Your task to perform on an android device: Search for "The Dispatcher" by John Scalzi on Goodreads Image 0: 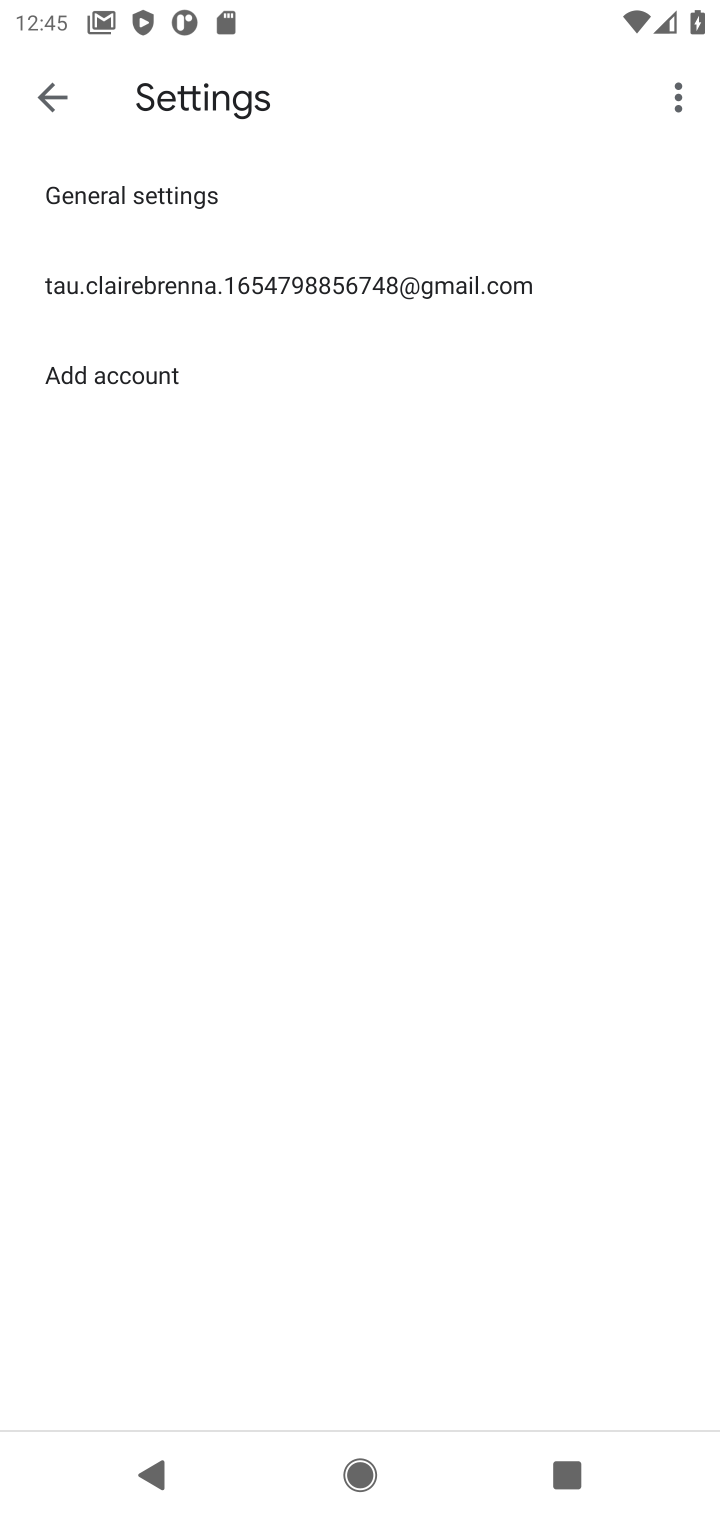
Step 0: press home button
Your task to perform on an android device: Search for "The Dispatcher" by John Scalzi on Goodreads Image 1: 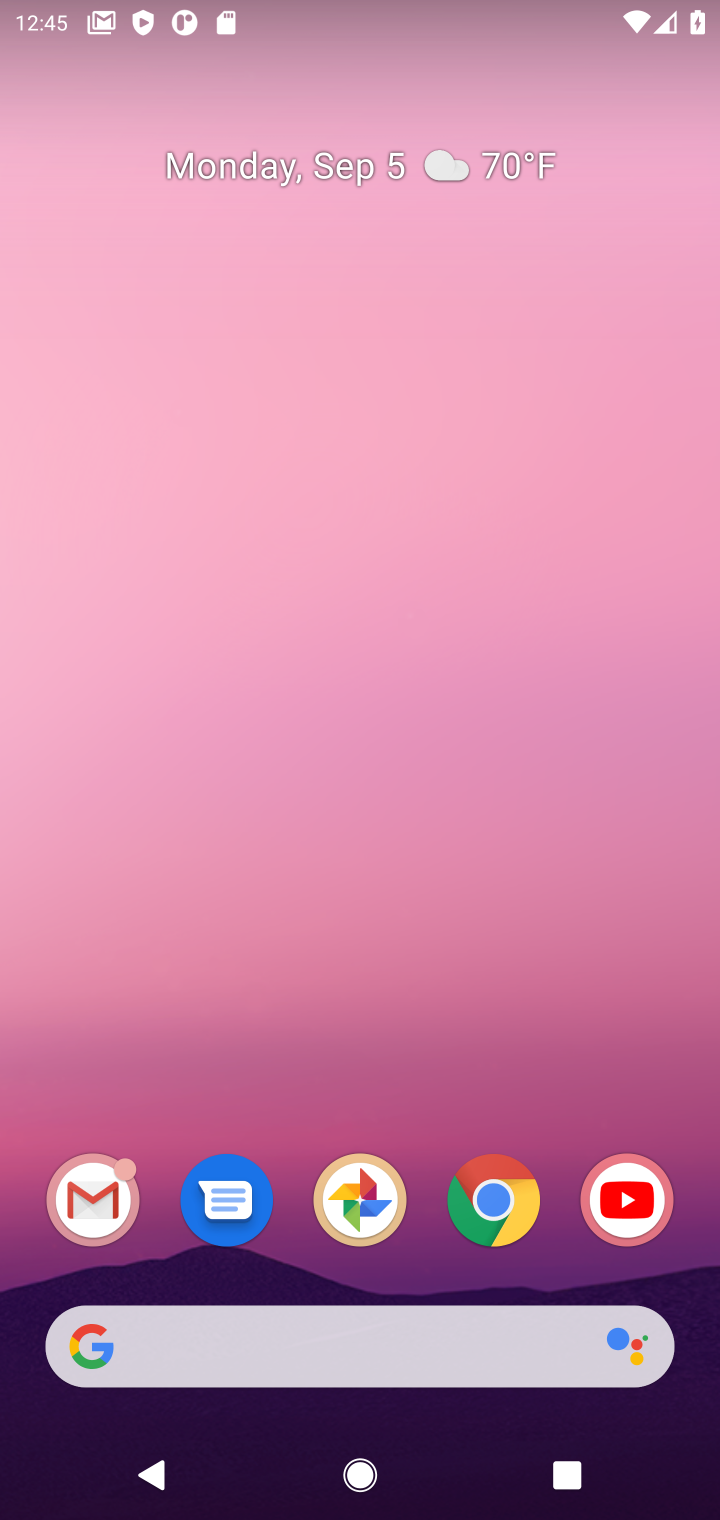
Step 1: click (501, 1218)
Your task to perform on an android device: Search for "The Dispatcher" by John Scalzi on Goodreads Image 2: 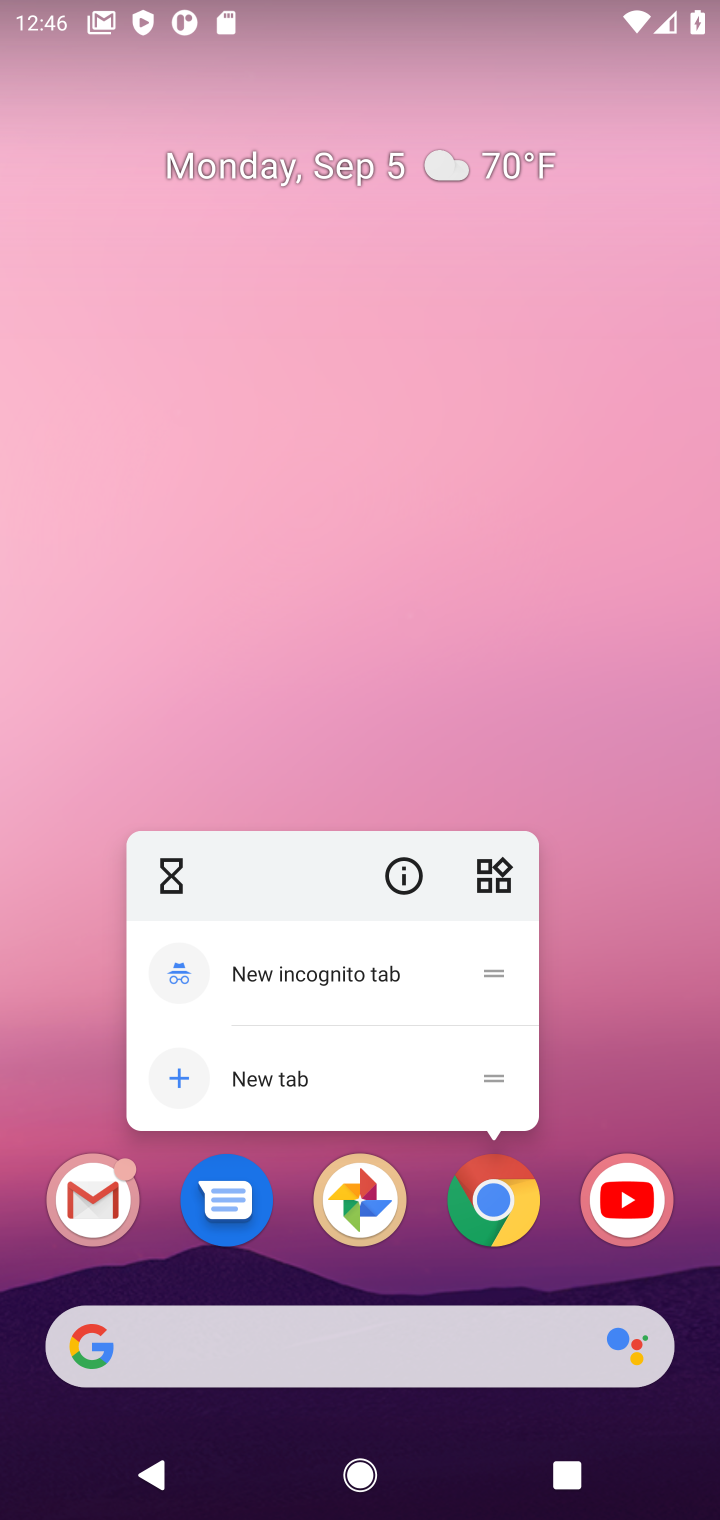
Step 2: drag from (501, 1218) to (491, 622)
Your task to perform on an android device: Search for "The Dispatcher" by John Scalzi on Goodreads Image 3: 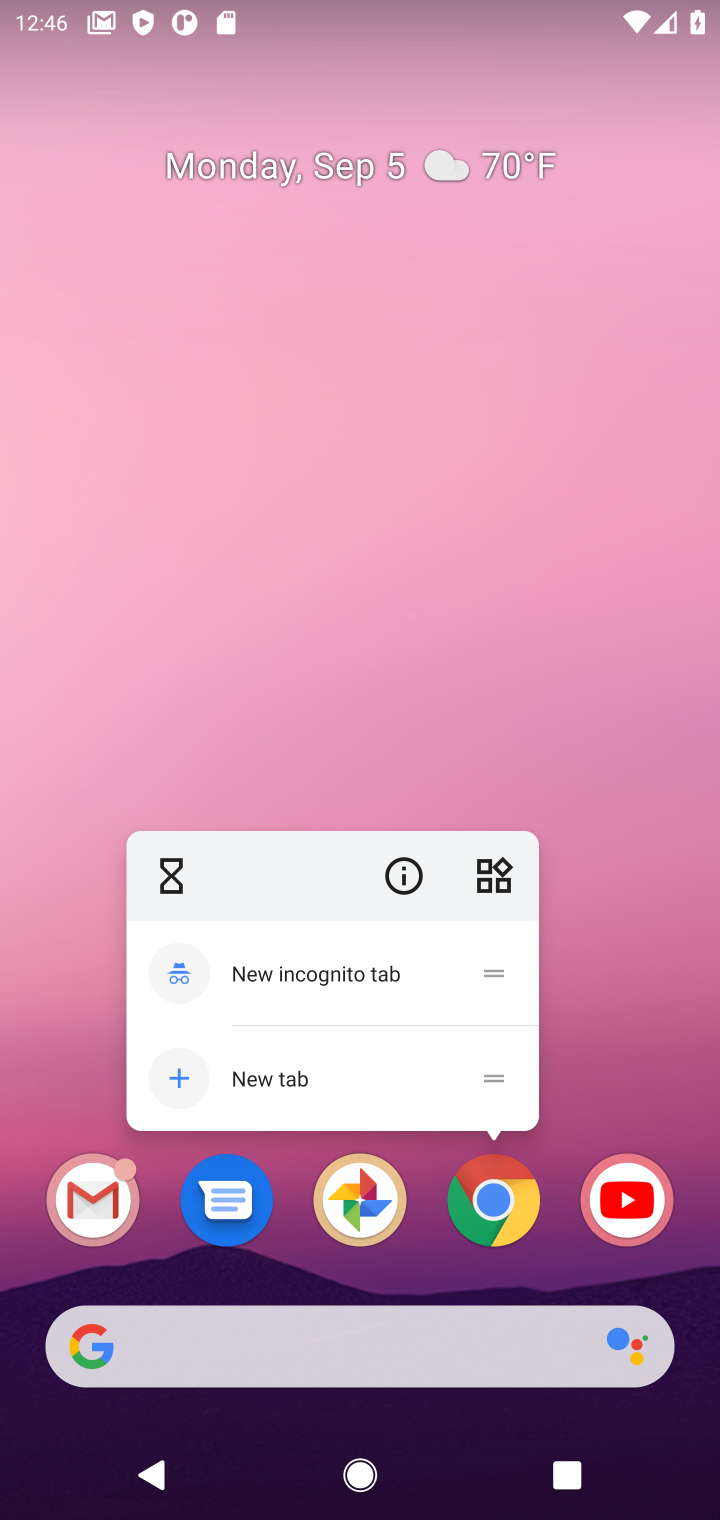
Step 3: click (485, 1194)
Your task to perform on an android device: Search for "The Dispatcher" by John Scalzi on Goodreads Image 4: 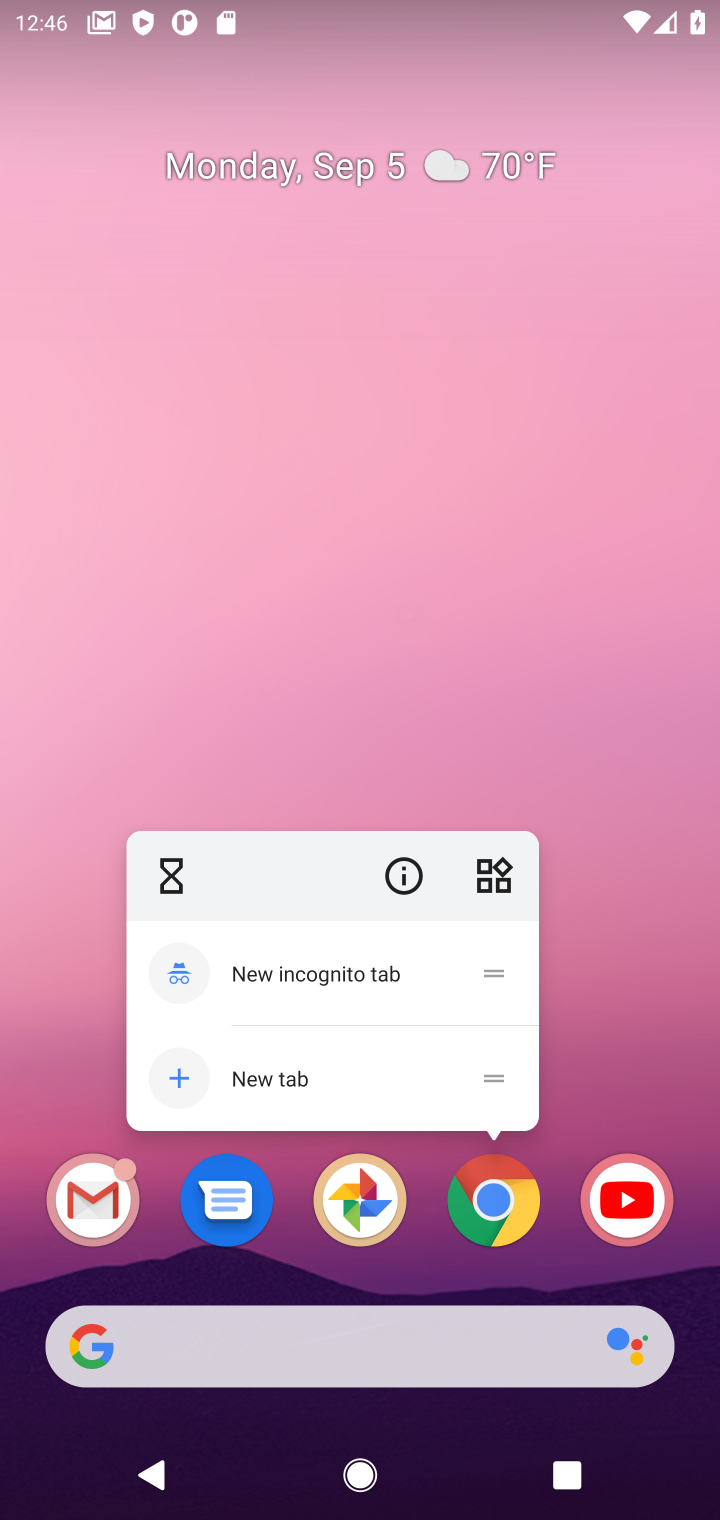
Step 4: click (506, 1221)
Your task to perform on an android device: Search for "The Dispatcher" by John Scalzi on Goodreads Image 5: 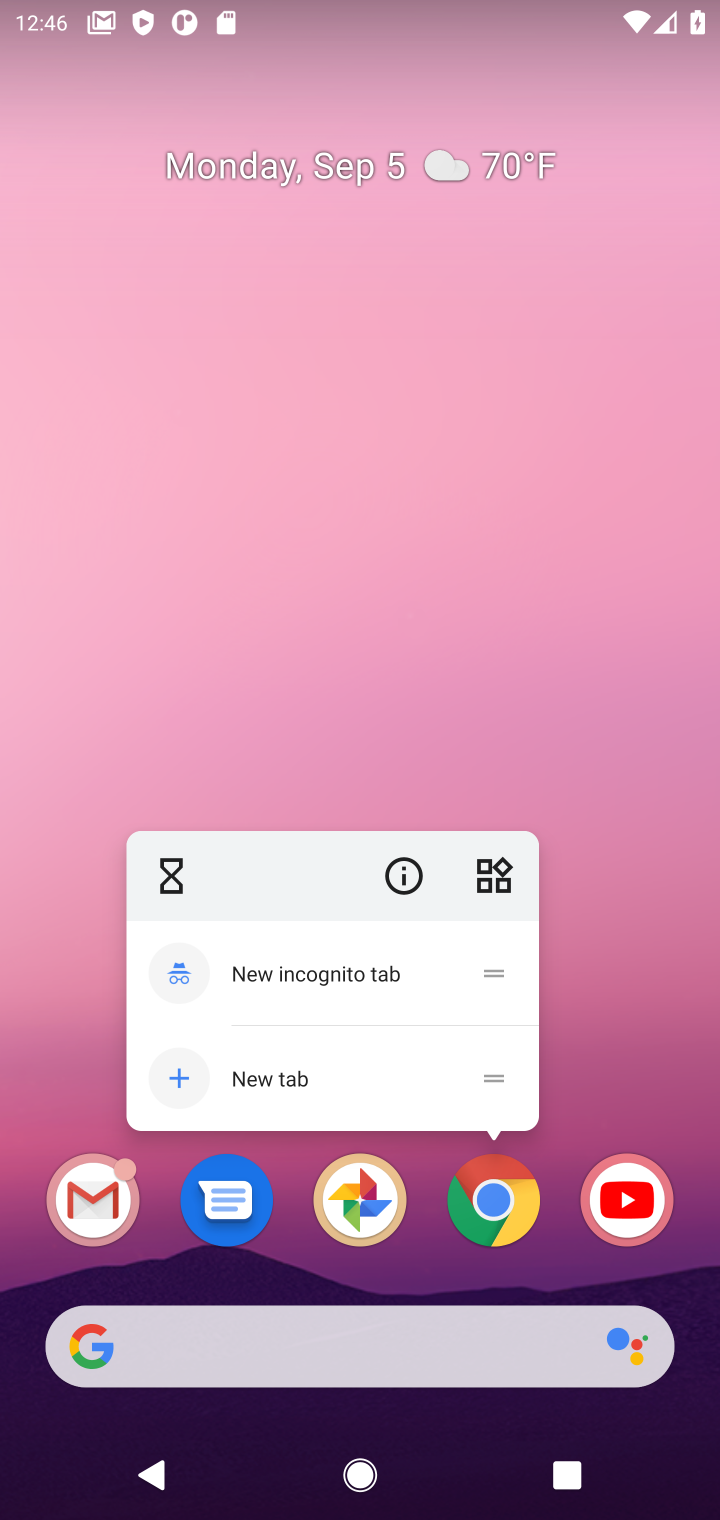
Step 5: click (501, 1219)
Your task to perform on an android device: Search for "The Dispatcher" by John Scalzi on Goodreads Image 6: 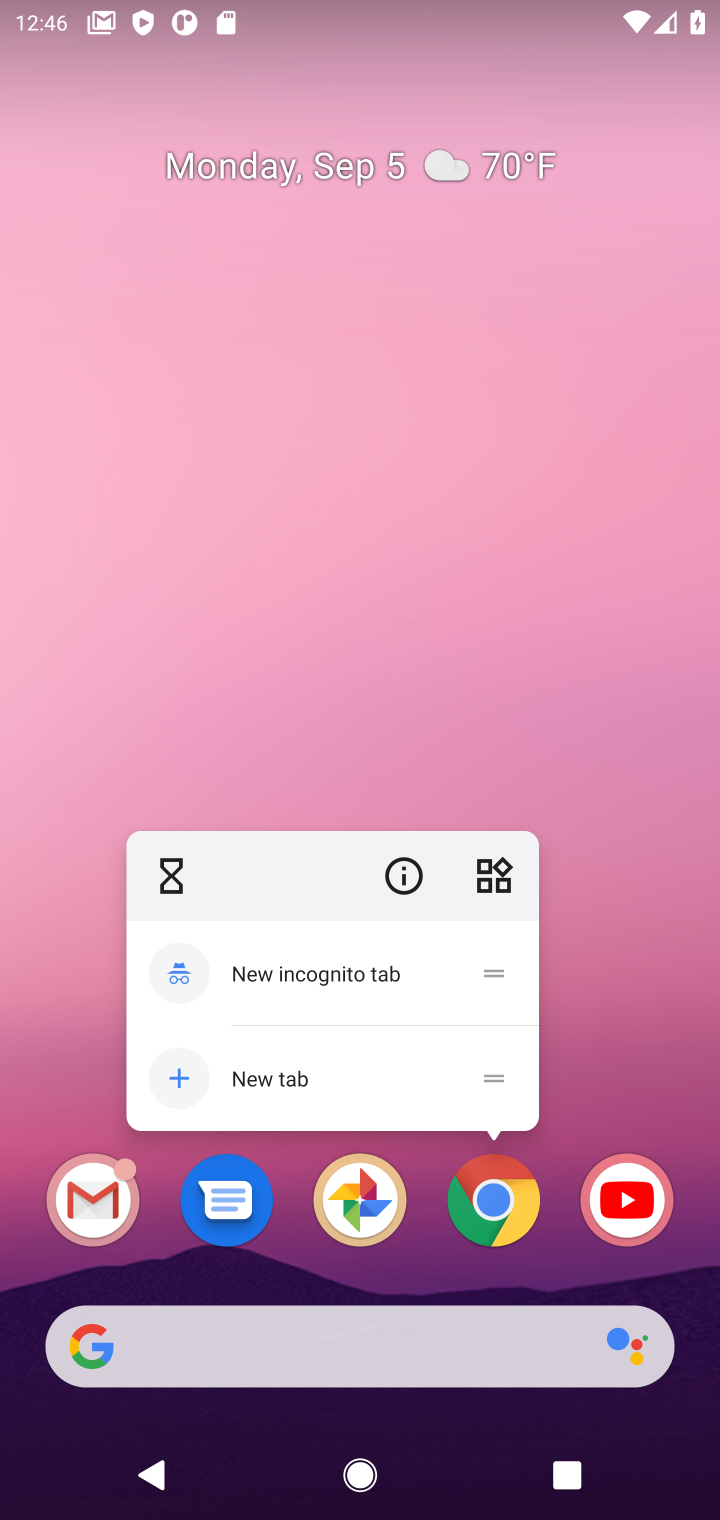
Step 6: click (460, 1204)
Your task to perform on an android device: Search for "The Dispatcher" by John Scalzi on Goodreads Image 7: 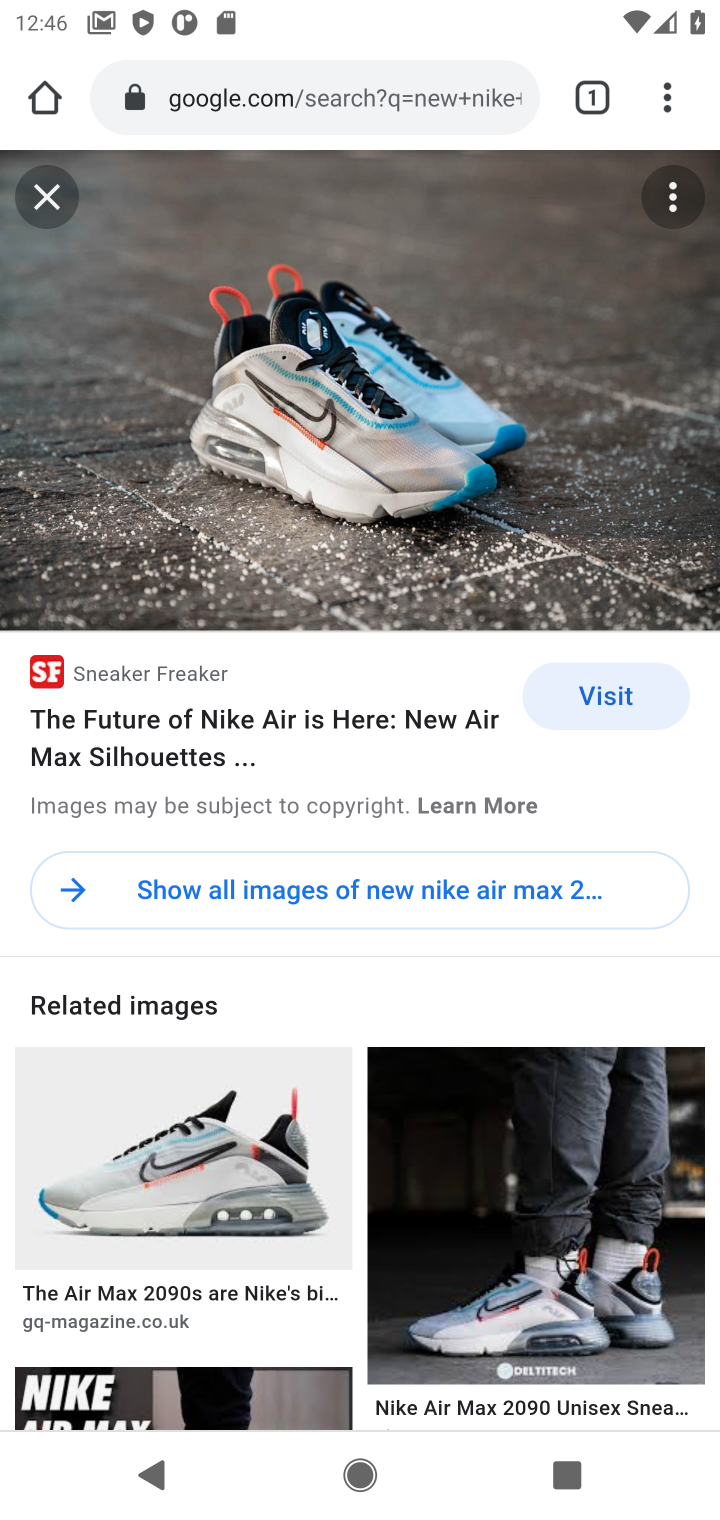
Step 7: click (448, 109)
Your task to perform on an android device: Search for "The Dispatcher" by John Scalzi on Goodreads Image 8: 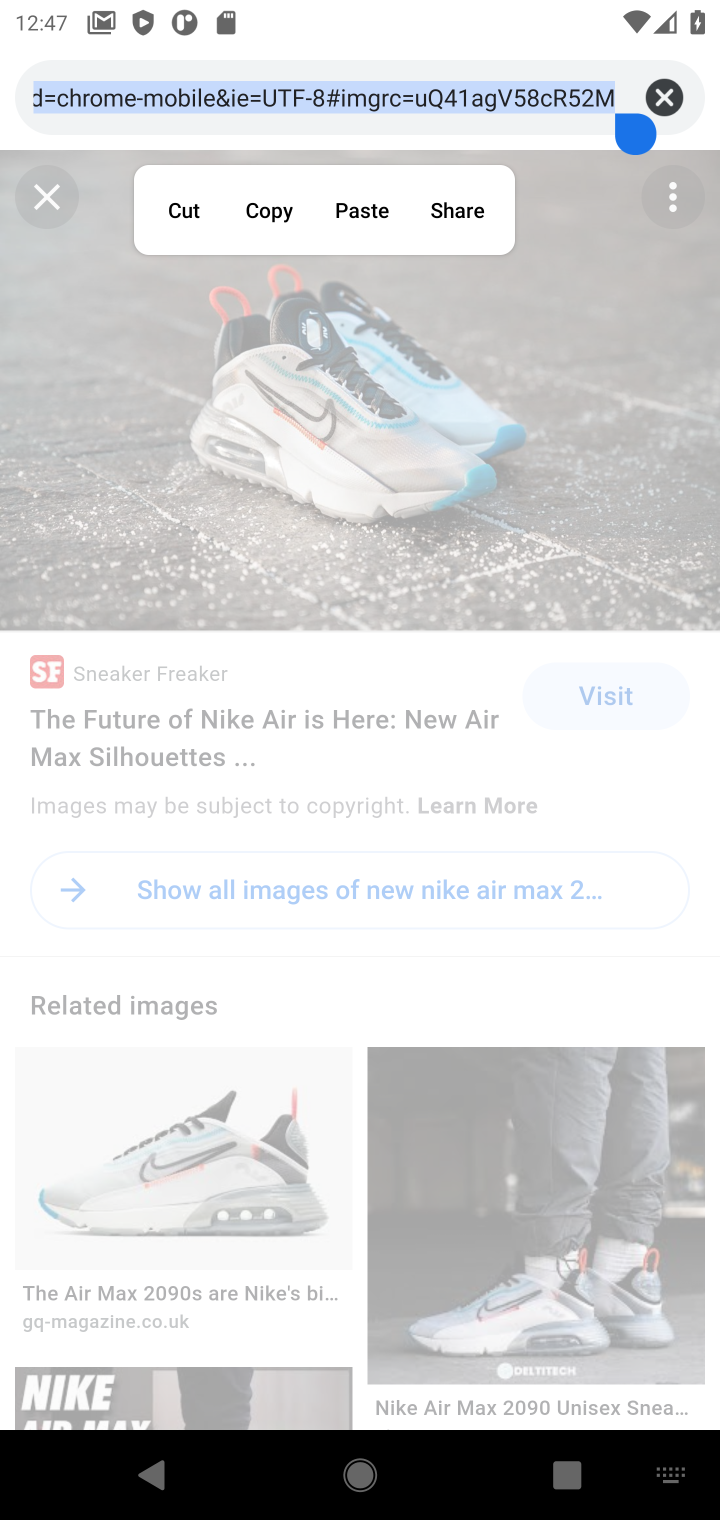
Step 8: type "goodreads"
Your task to perform on an android device: Search for "The Dispatcher" by John Scalzi on Goodreads Image 9: 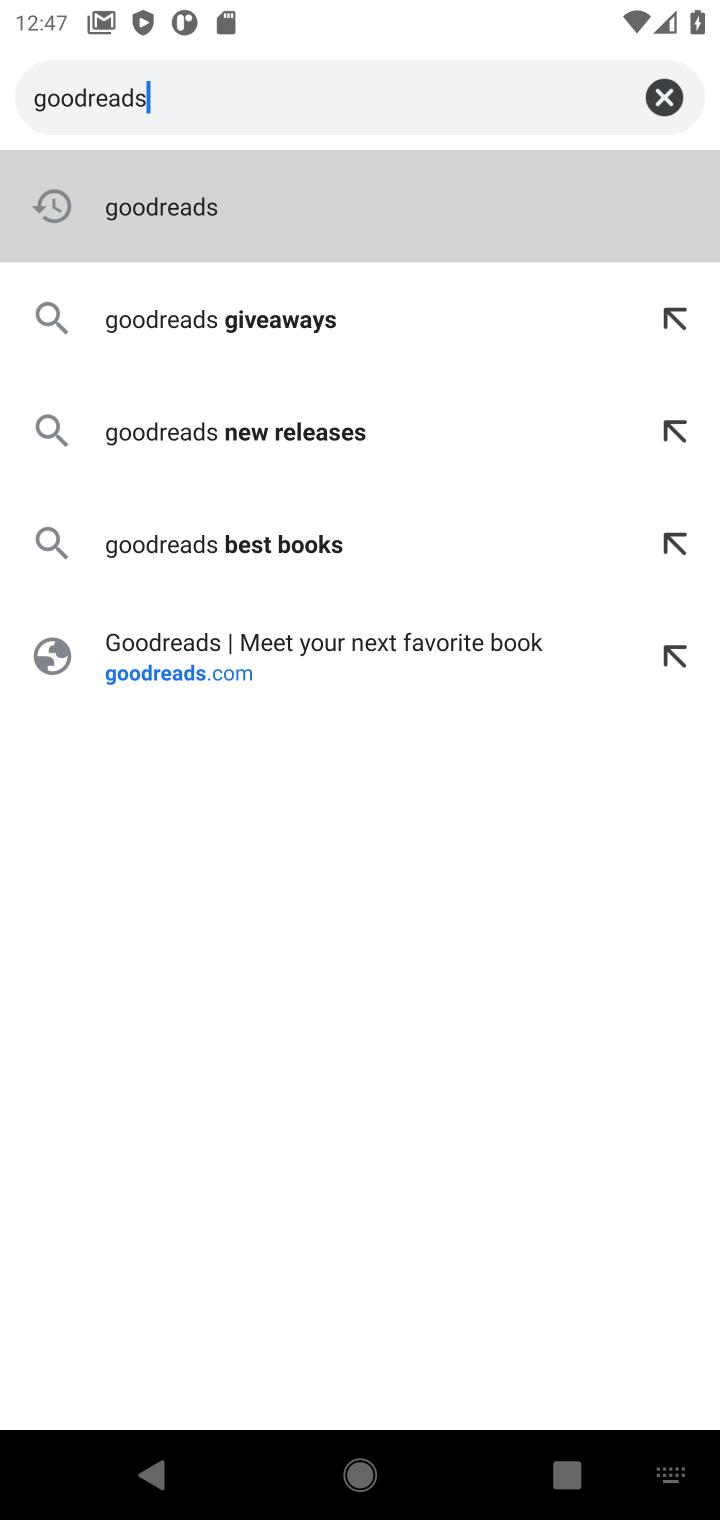
Step 9: click (306, 227)
Your task to perform on an android device: Search for "The Dispatcher" by John Scalzi on Goodreads Image 10: 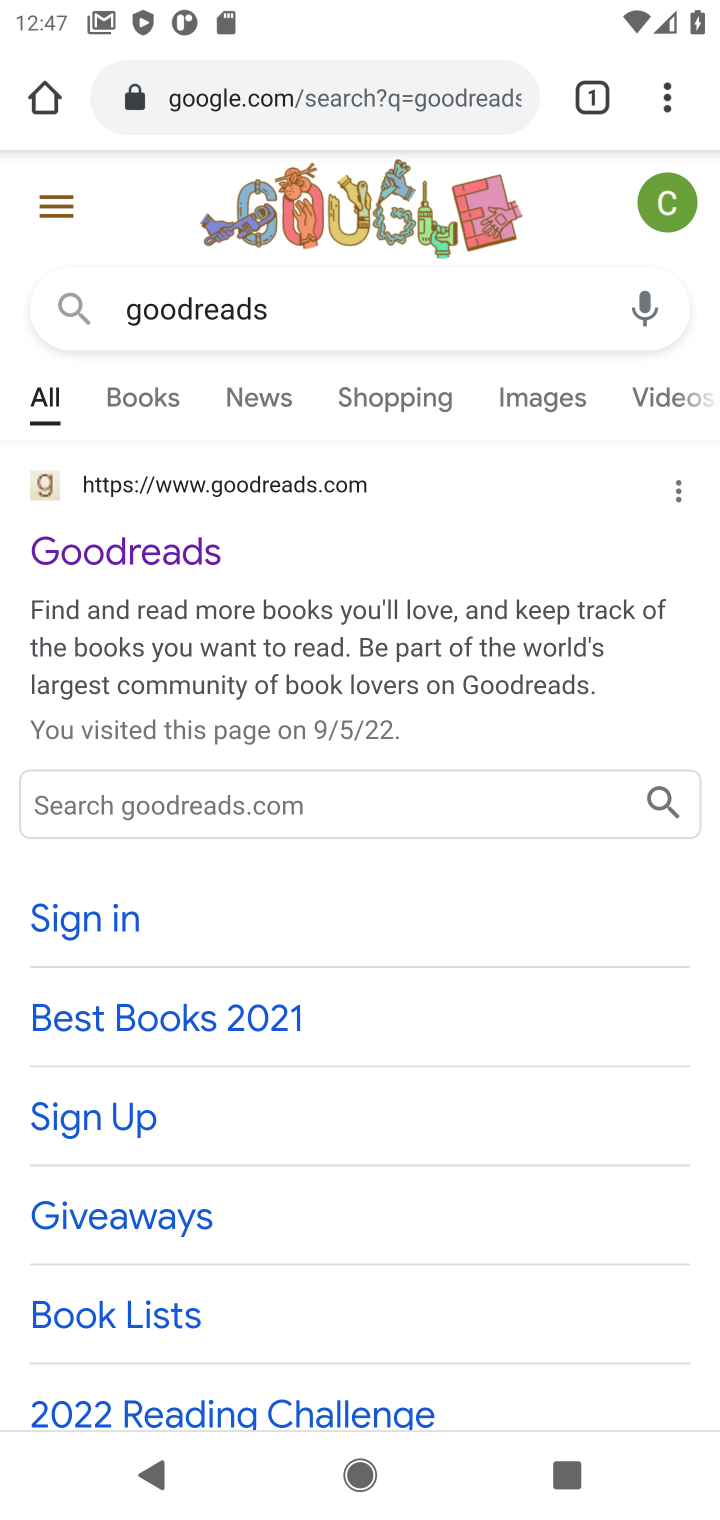
Step 10: click (134, 558)
Your task to perform on an android device: Search for "The Dispatcher" by John Scalzi on Goodreads Image 11: 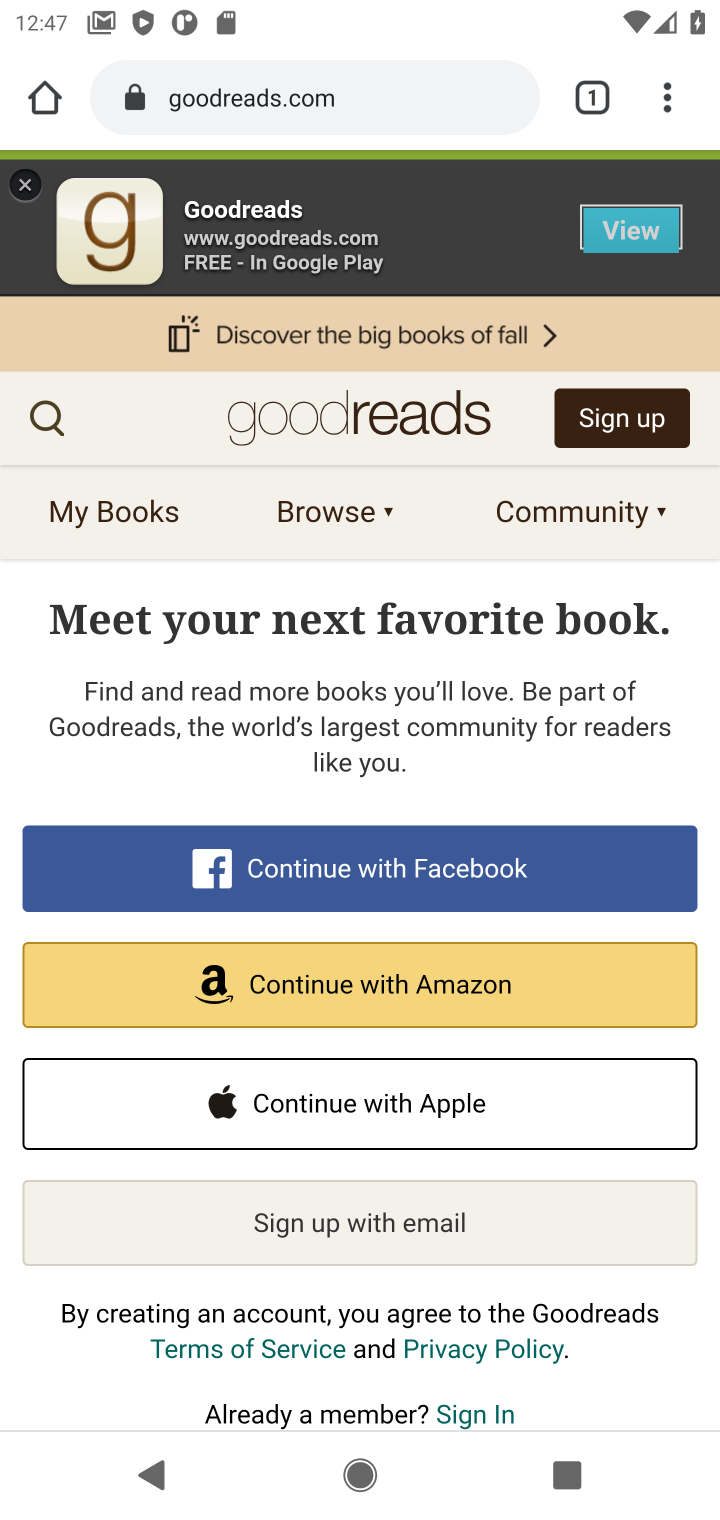
Step 11: click (52, 412)
Your task to perform on an android device: Search for "The Dispatcher" by John Scalzi on Goodreads Image 12: 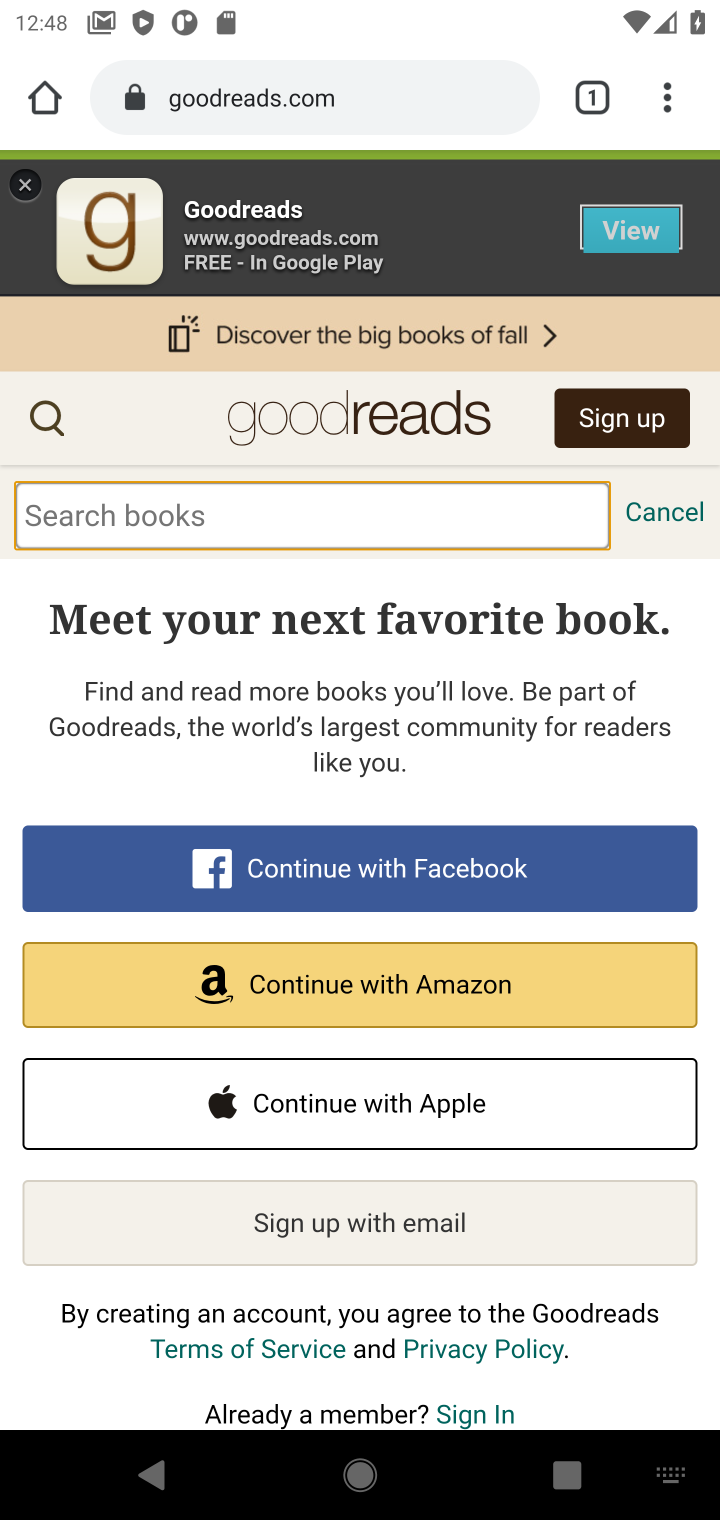
Step 12: type "the dispatcher"
Your task to perform on an android device: Search for "The Dispatcher" by John Scalzi on Goodreads Image 13: 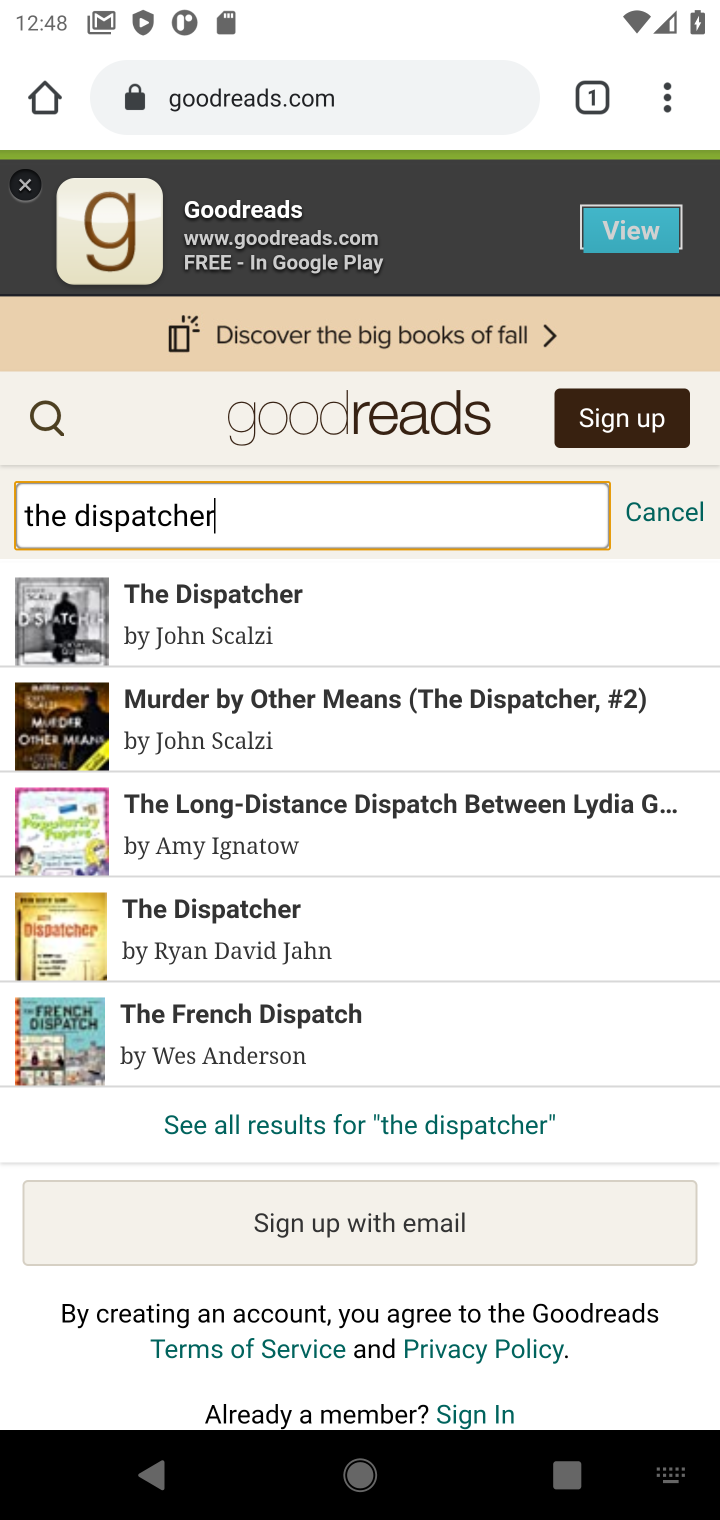
Step 13: click (408, 610)
Your task to perform on an android device: Search for "The Dispatcher" by John Scalzi on Goodreads Image 14: 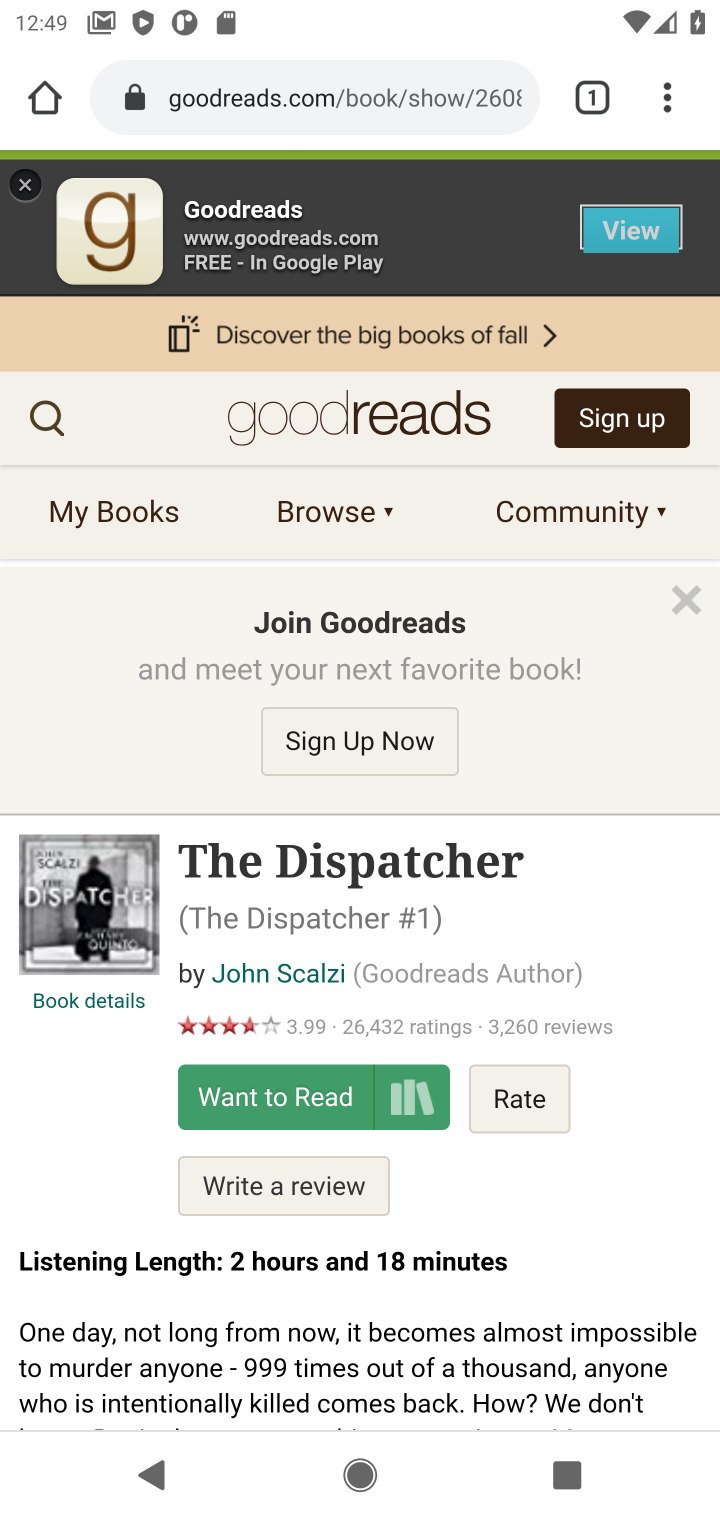
Step 14: task complete